Your task to perform on an android device: Open internet settings Image 0: 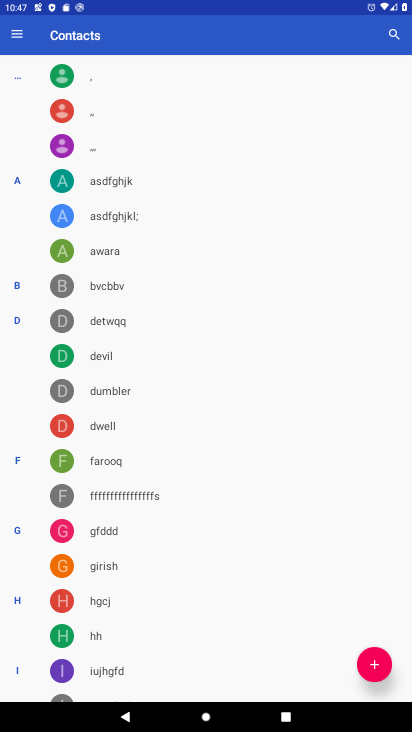
Step 0: drag from (327, 10) to (298, 537)
Your task to perform on an android device: Open internet settings Image 1: 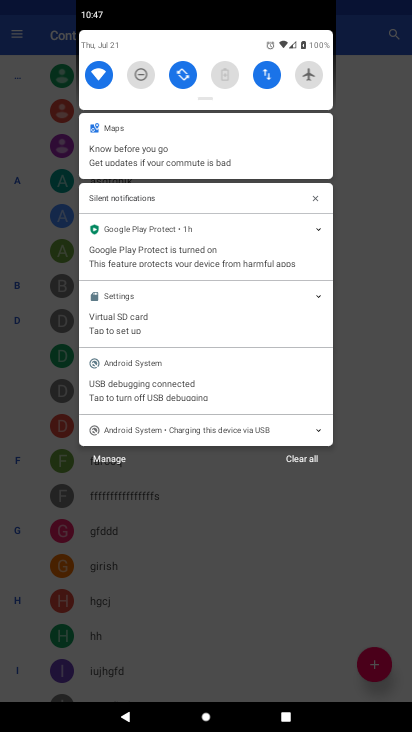
Step 1: click (269, 78)
Your task to perform on an android device: Open internet settings Image 2: 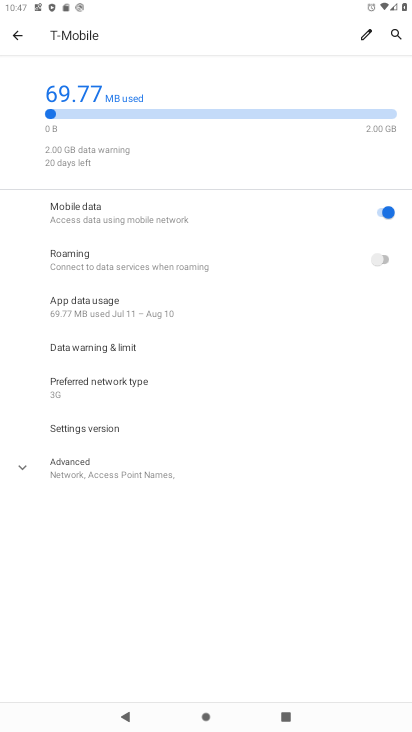
Step 2: task complete